Your task to perform on an android device: change alarm snooze length Image 0: 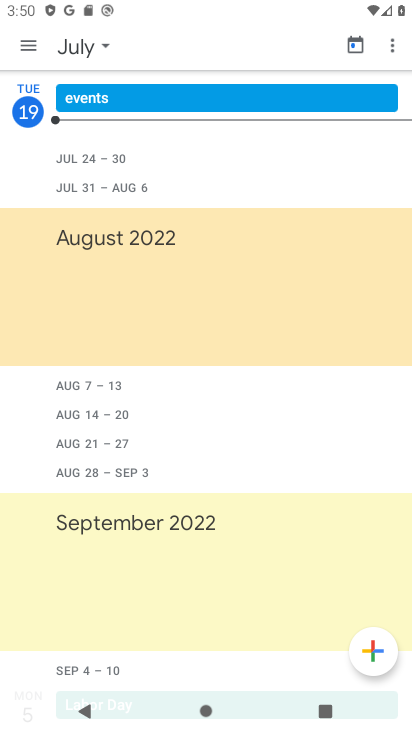
Step 0: press home button
Your task to perform on an android device: change alarm snooze length Image 1: 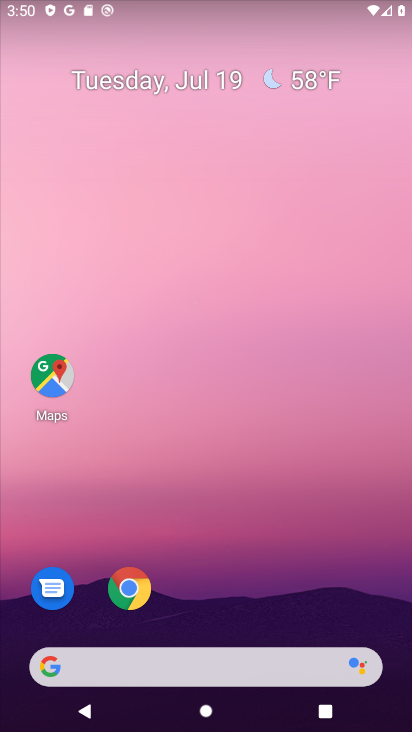
Step 1: drag from (226, 625) to (274, 209)
Your task to perform on an android device: change alarm snooze length Image 2: 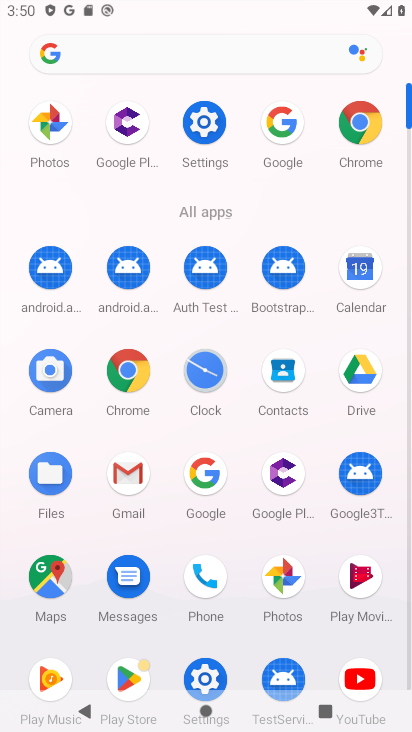
Step 2: click (211, 379)
Your task to perform on an android device: change alarm snooze length Image 3: 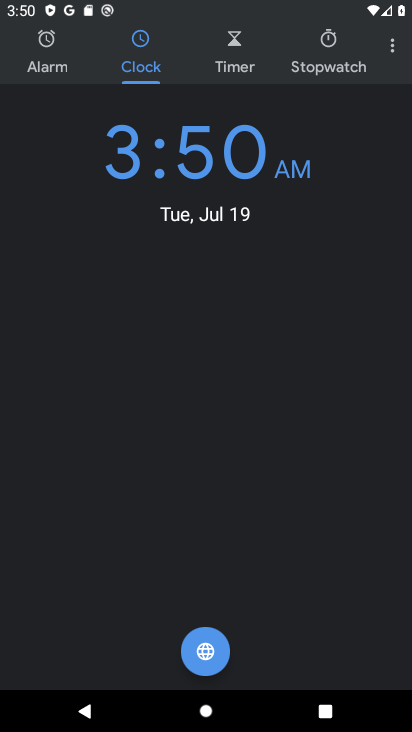
Step 3: click (391, 54)
Your task to perform on an android device: change alarm snooze length Image 4: 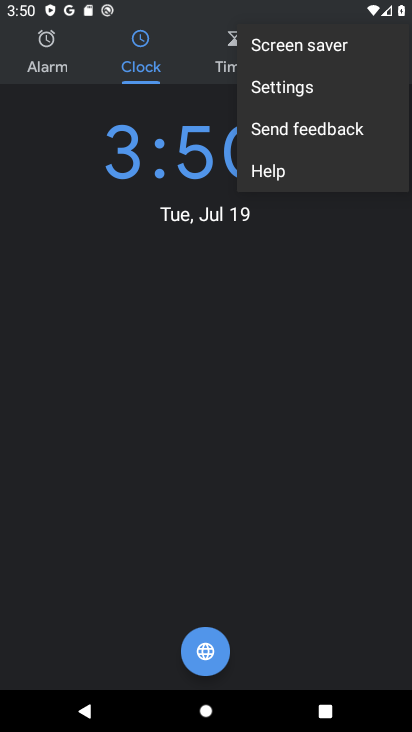
Step 4: click (351, 85)
Your task to perform on an android device: change alarm snooze length Image 5: 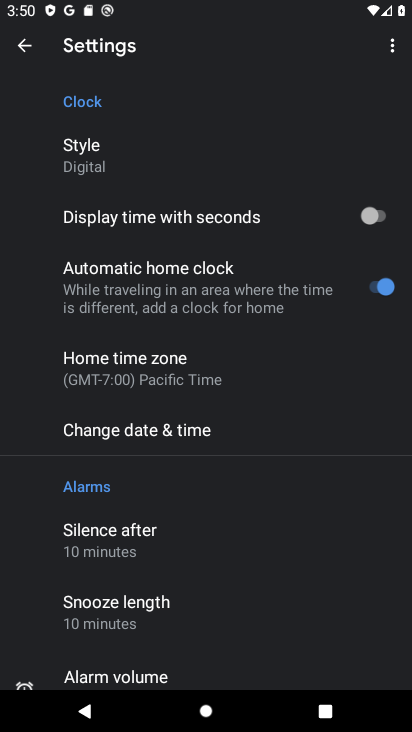
Step 5: drag from (244, 620) to (275, 429)
Your task to perform on an android device: change alarm snooze length Image 6: 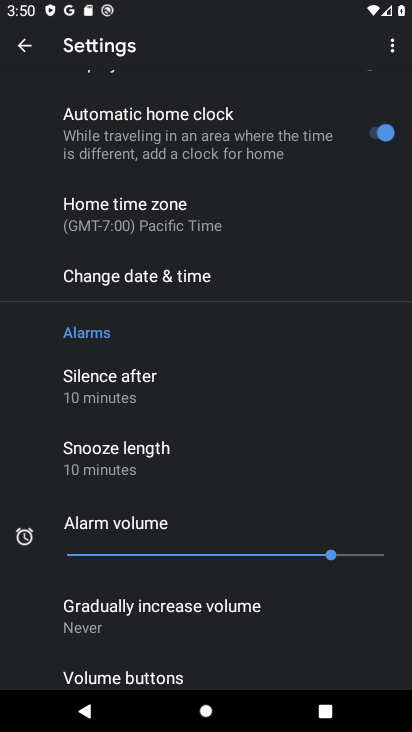
Step 6: click (185, 455)
Your task to perform on an android device: change alarm snooze length Image 7: 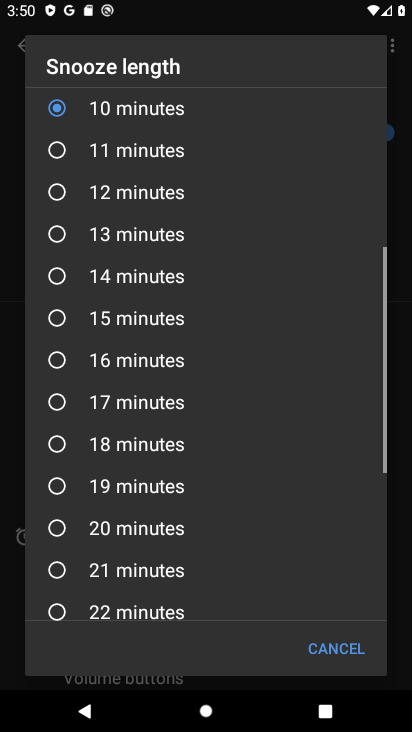
Step 7: click (189, 605)
Your task to perform on an android device: change alarm snooze length Image 8: 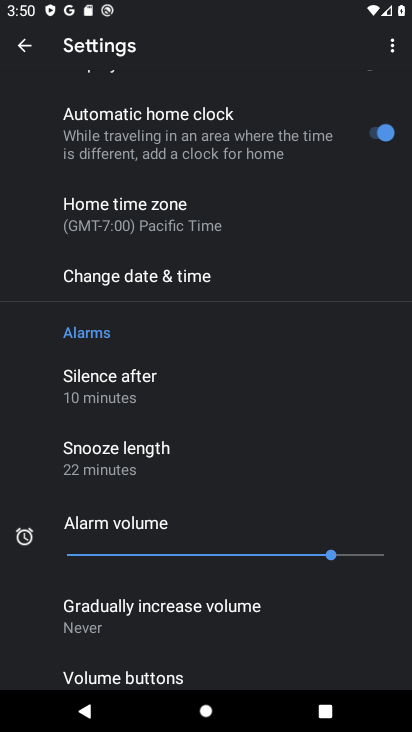
Step 8: task complete